Your task to perform on an android device: Search for vegetarian restaurants on Maps Image 0: 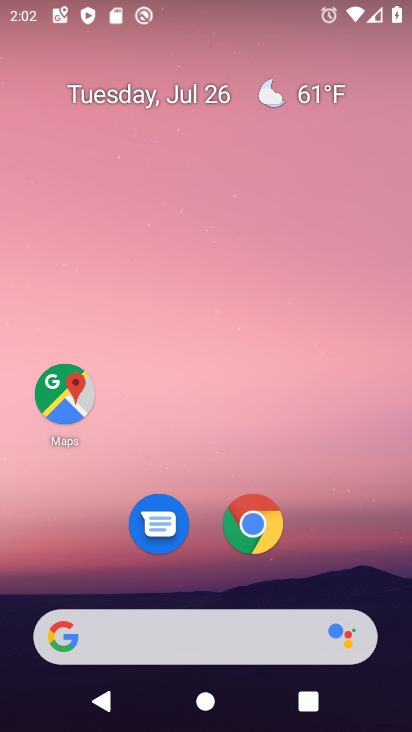
Step 0: press home button
Your task to perform on an android device: Search for vegetarian restaurants on Maps Image 1: 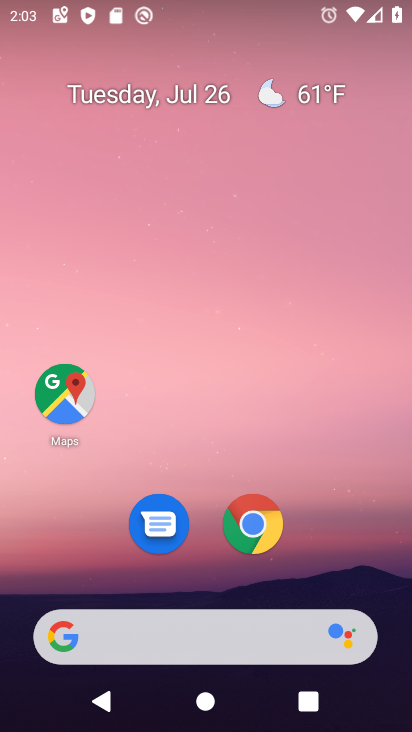
Step 1: click (67, 390)
Your task to perform on an android device: Search for vegetarian restaurants on Maps Image 2: 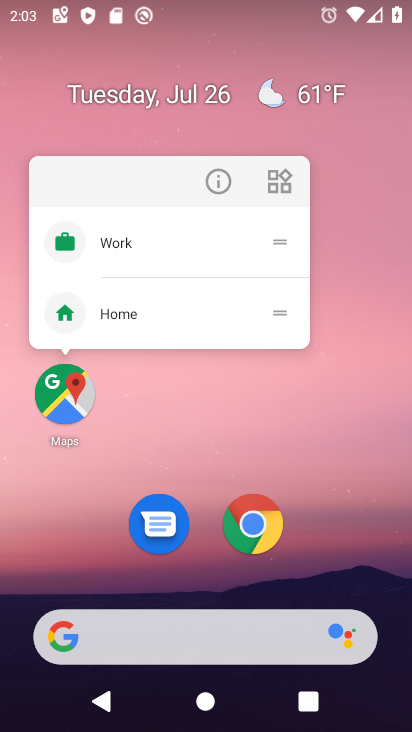
Step 2: click (65, 398)
Your task to perform on an android device: Search for vegetarian restaurants on Maps Image 3: 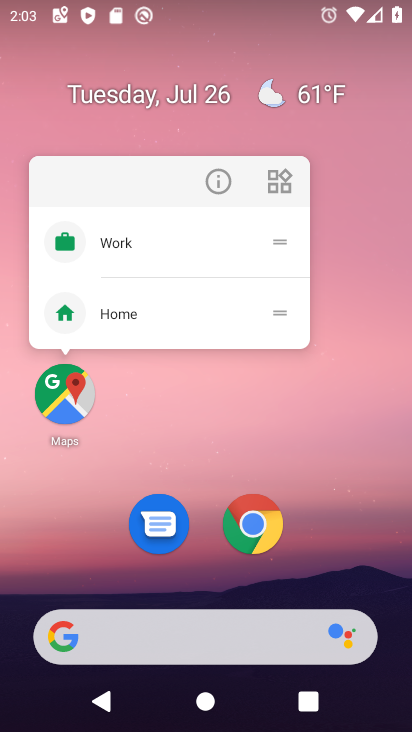
Step 3: click (68, 399)
Your task to perform on an android device: Search for vegetarian restaurants on Maps Image 4: 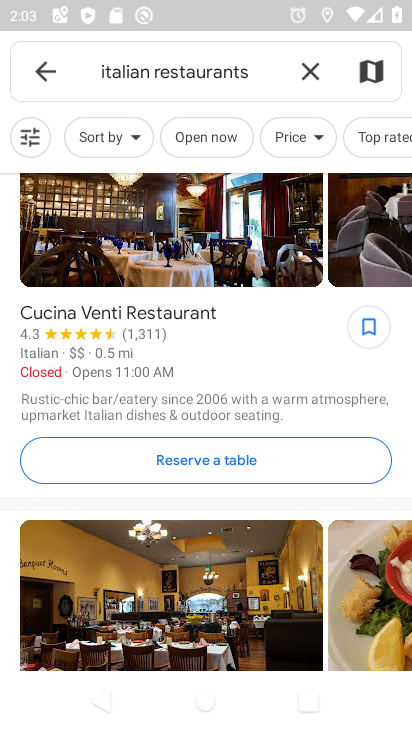
Step 4: click (308, 69)
Your task to perform on an android device: Search for vegetarian restaurants on Maps Image 5: 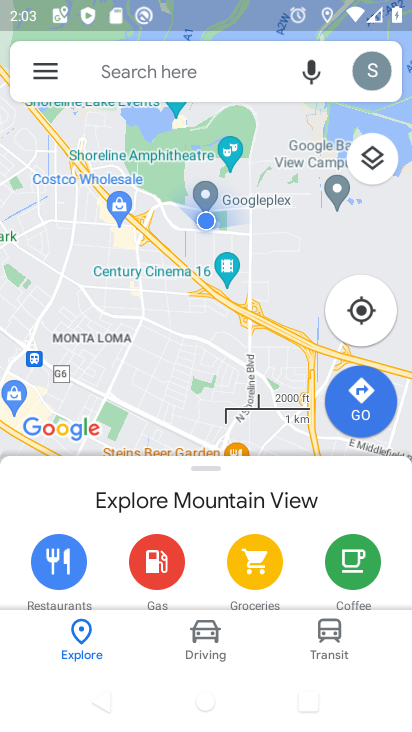
Step 5: click (158, 65)
Your task to perform on an android device: Search for vegetarian restaurants on Maps Image 6: 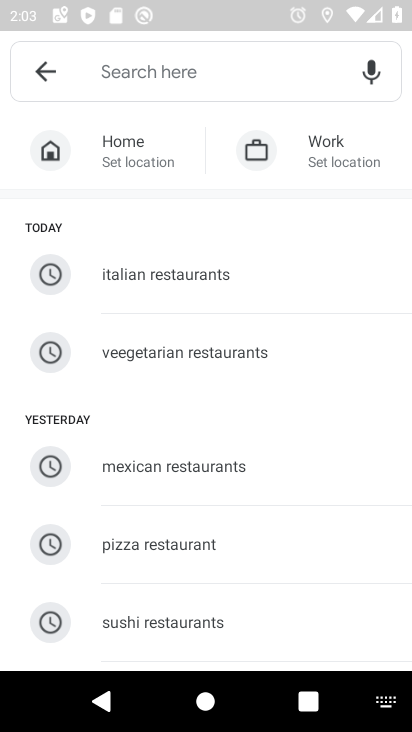
Step 6: click (173, 352)
Your task to perform on an android device: Search for vegetarian restaurants on Maps Image 7: 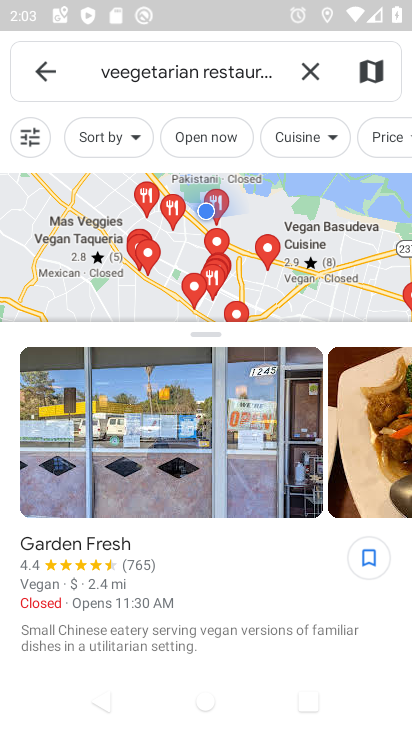
Step 7: task complete